Your task to perform on an android device: turn pop-ups off in chrome Image 0: 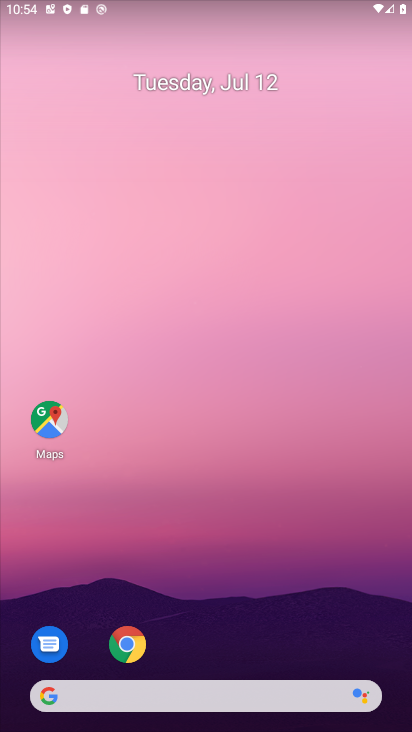
Step 0: click (123, 640)
Your task to perform on an android device: turn pop-ups off in chrome Image 1: 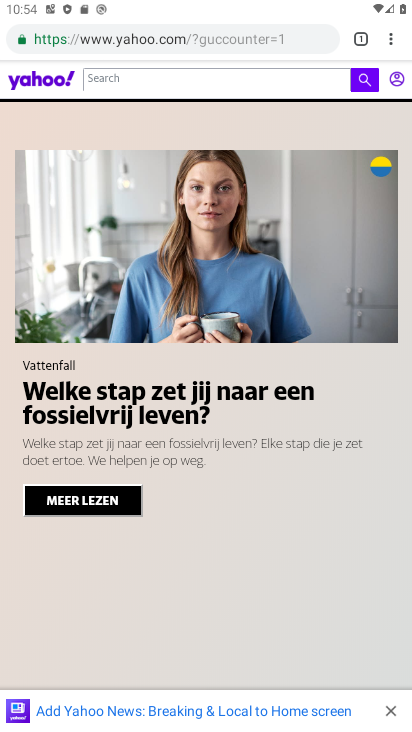
Step 1: click (391, 36)
Your task to perform on an android device: turn pop-ups off in chrome Image 2: 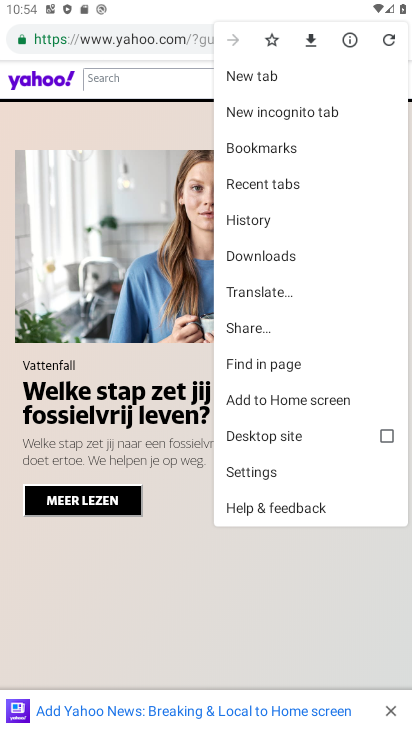
Step 2: click (282, 466)
Your task to perform on an android device: turn pop-ups off in chrome Image 3: 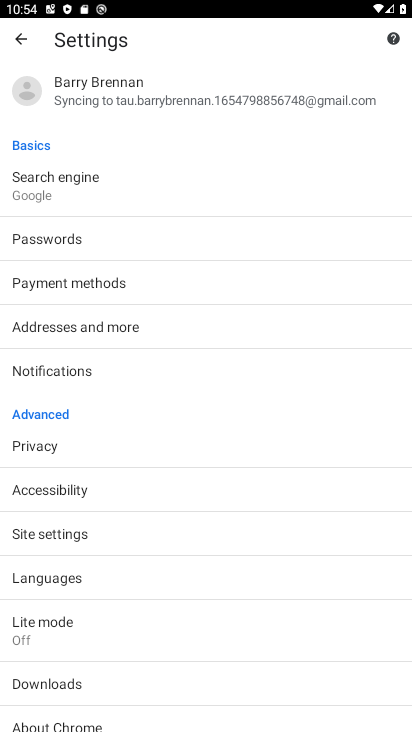
Step 3: click (104, 529)
Your task to perform on an android device: turn pop-ups off in chrome Image 4: 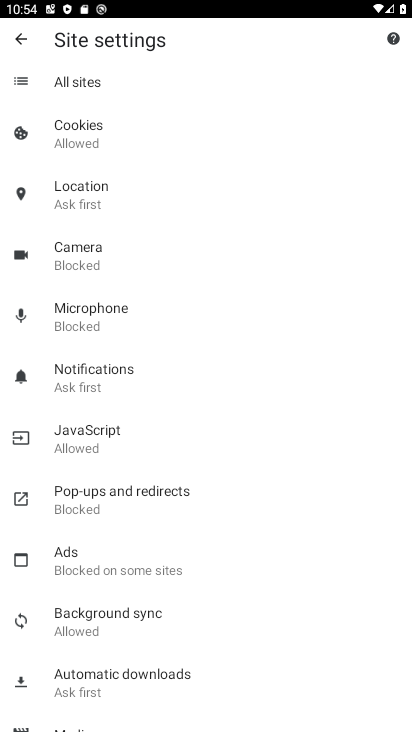
Step 4: click (125, 503)
Your task to perform on an android device: turn pop-ups off in chrome Image 5: 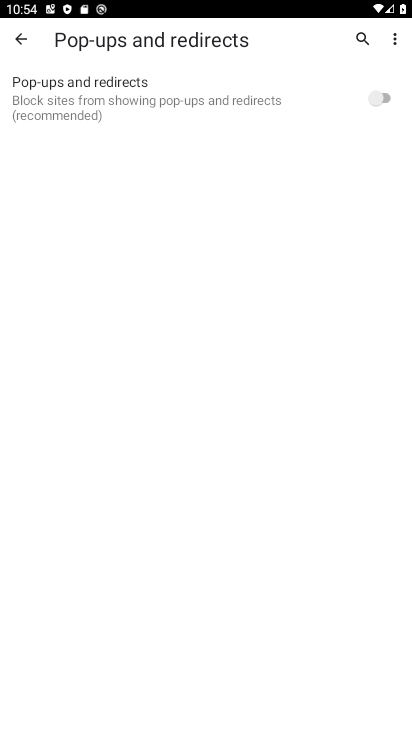
Step 5: task complete